Your task to perform on an android device: toggle priority inbox in the gmail app Image 0: 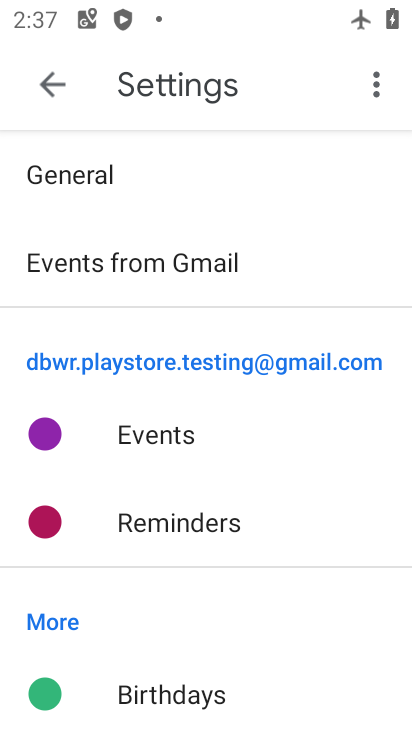
Step 0: press home button
Your task to perform on an android device: toggle priority inbox in the gmail app Image 1: 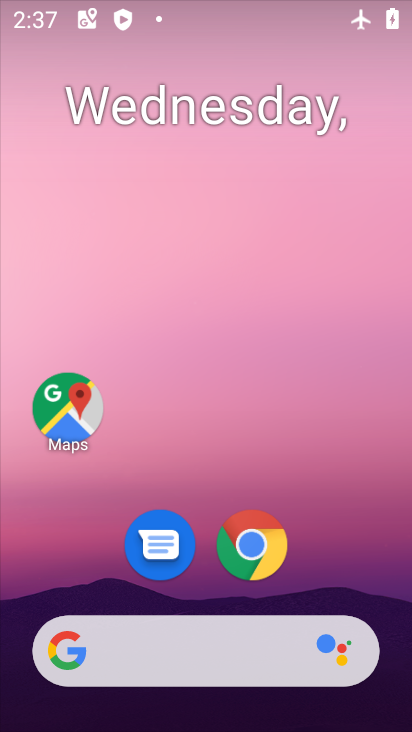
Step 1: drag from (372, 532) to (288, 95)
Your task to perform on an android device: toggle priority inbox in the gmail app Image 2: 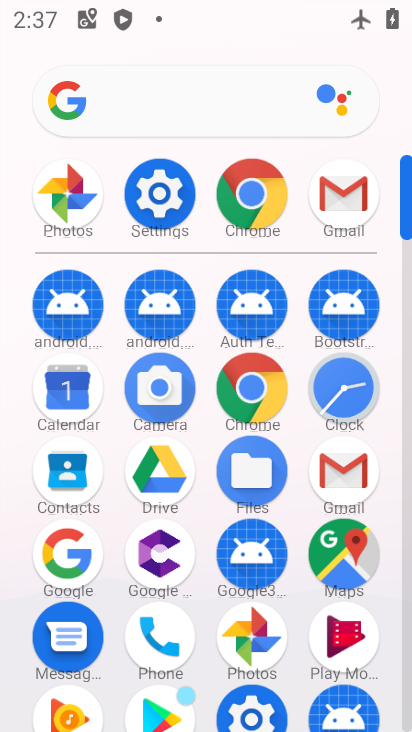
Step 2: click (344, 213)
Your task to perform on an android device: toggle priority inbox in the gmail app Image 3: 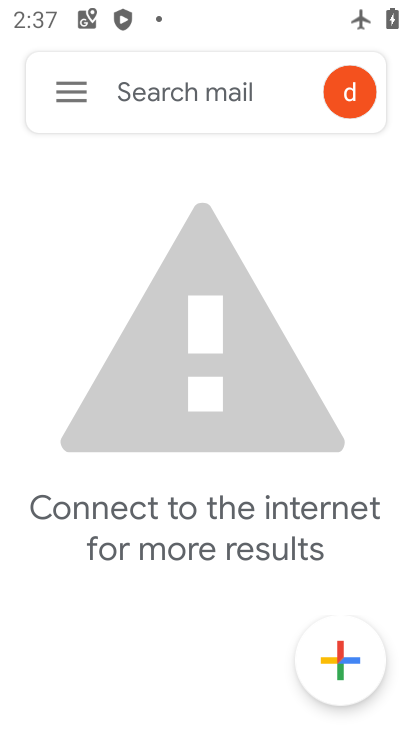
Step 3: click (76, 85)
Your task to perform on an android device: toggle priority inbox in the gmail app Image 4: 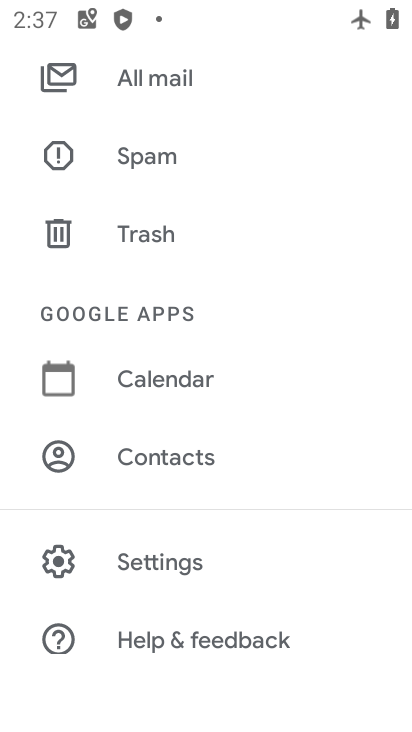
Step 4: click (189, 571)
Your task to perform on an android device: toggle priority inbox in the gmail app Image 5: 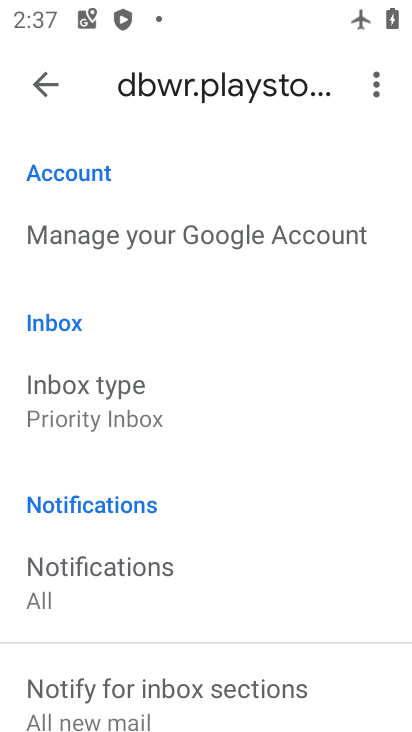
Step 5: click (111, 380)
Your task to perform on an android device: toggle priority inbox in the gmail app Image 6: 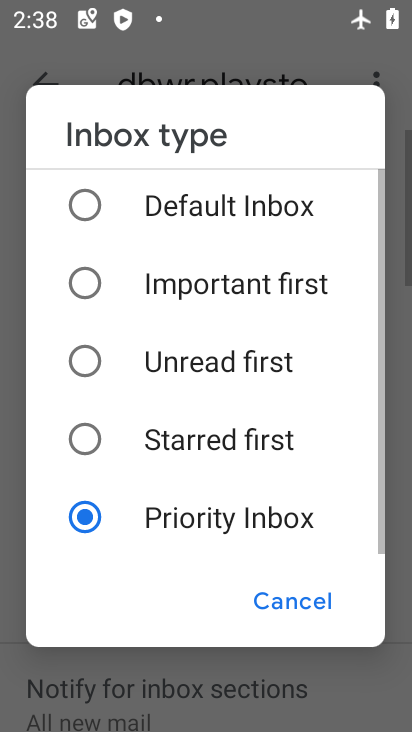
Step 6: click (265, 204)
Your task to perform on an android device: toggle priority inbox in the gmail app Image 7: 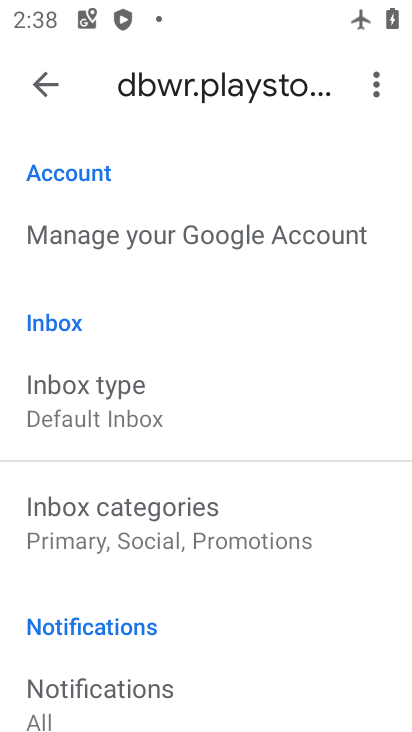
Step 7: task complete